Your task to perform on an android device: Is it going to rain today? Image 0: 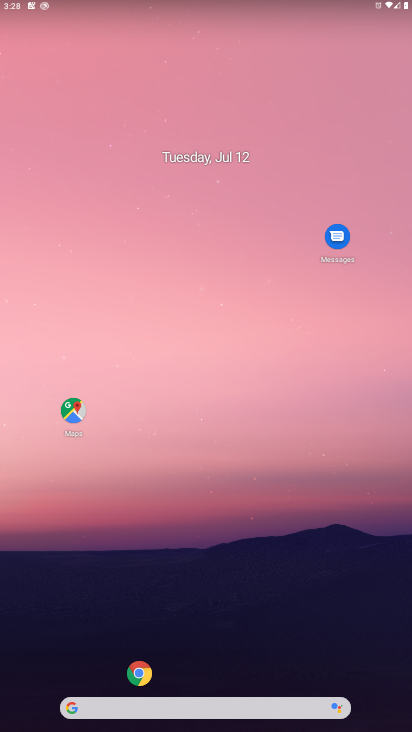
Step 0: click (122, 706)
Your task to perform on an android device: Is it going to rain today? Image 1: 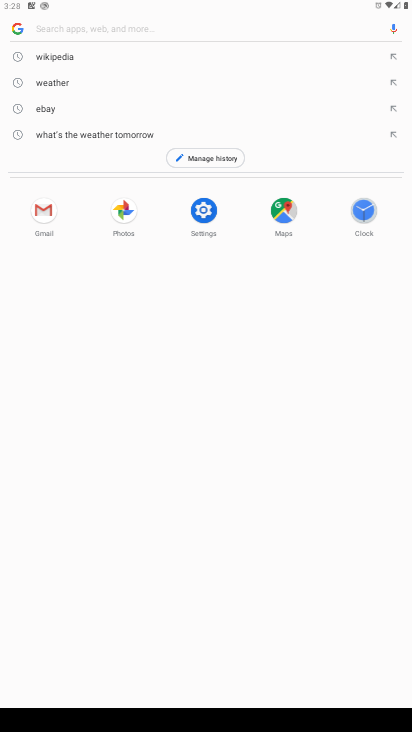
Step 1: type "Is it going to rain today?"
Your task to perform on an android device: Is it going to rain today? Image 2: 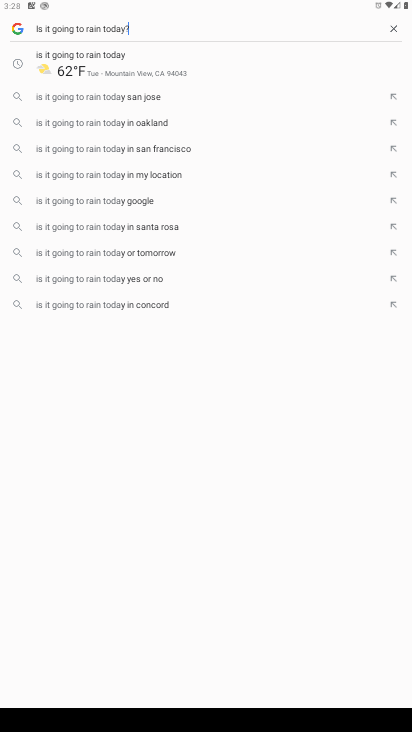
Step 2: type ""
Your task to perform on an android device: Is it going to rain today? Image 3: 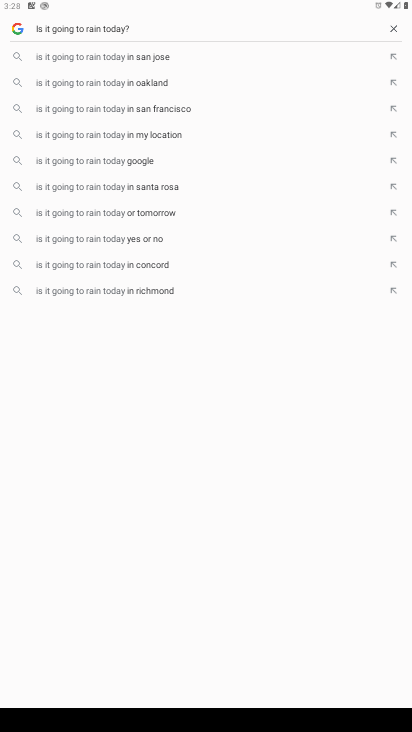
Step 3: type ""
Your task to perform on an android device: Is it going to rain today? Image 4: 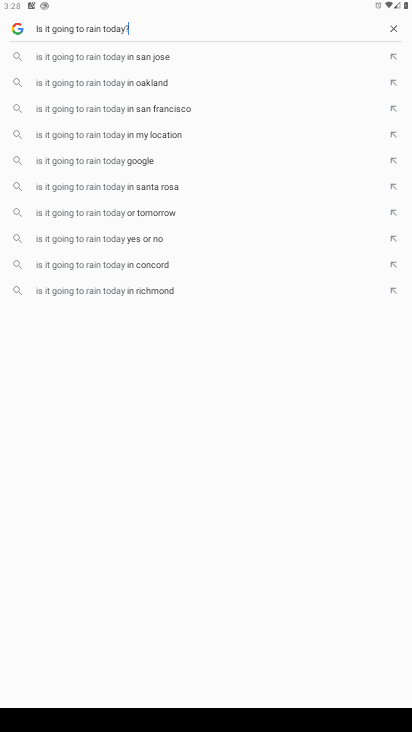
Step 4: type ""
Your task to perform on an android device: Is it going to rain today? Image 5: 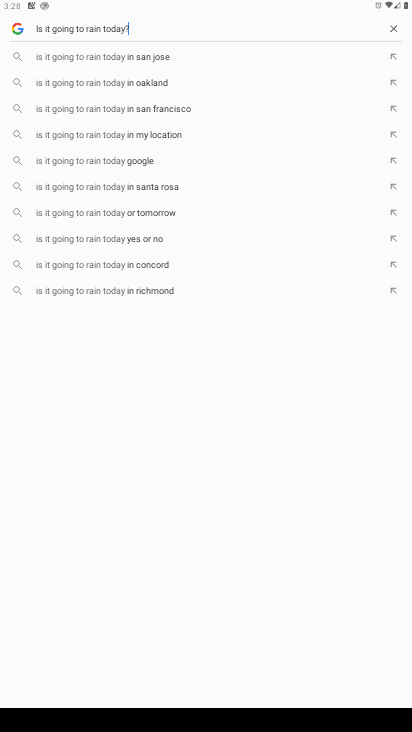
Step 5: task complete